Your task to perform on an android device: turn on improve location accuracy Image 0: 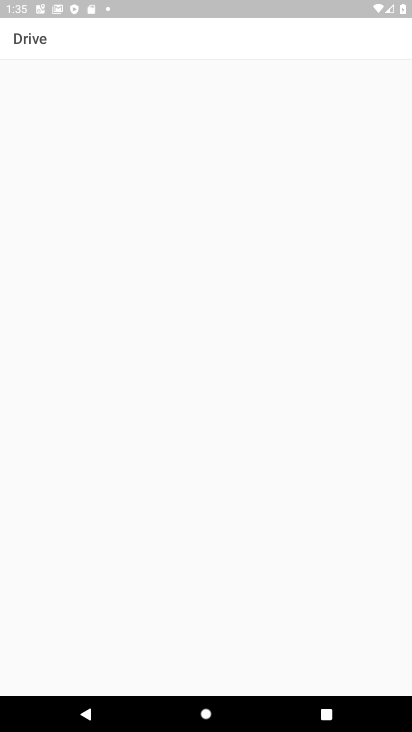
Step 0: press home button
Your task to perform on an android device: turn on improve location accuracy Image 1: 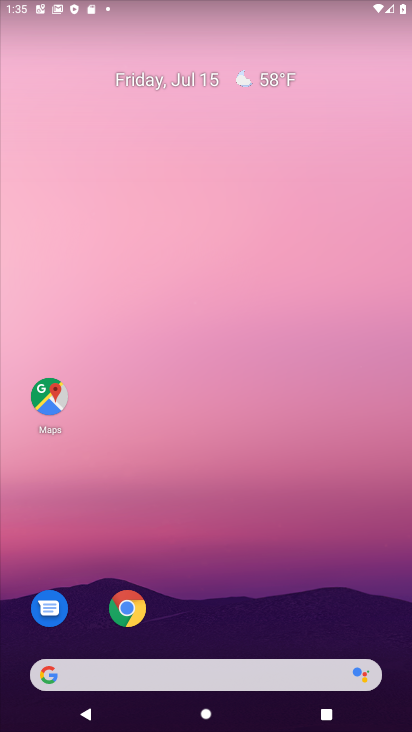
Step 1: drag from (177, 595) to (358, 0)
Your task to perform on an android device: turn on improve location accuracy Image 2: 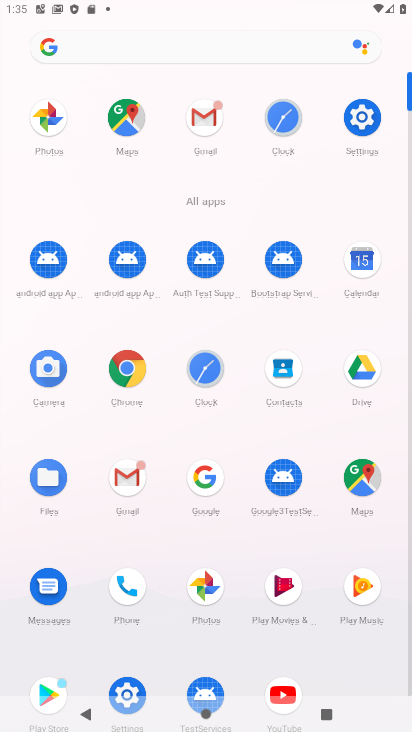
Step 2: drag from (173, 406) to (251, 91)
Your task to perform on an android device: turn on improve location accuracy Image 3: 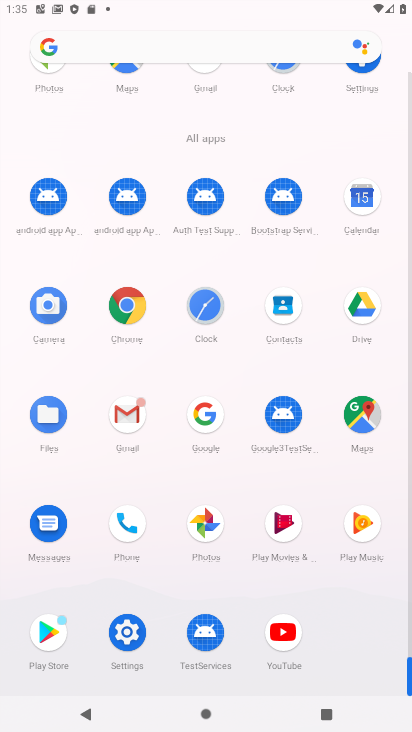
Step 3: click (130, 627)
Your task to perform on an android device: turn on improve location accuracy Image 4: 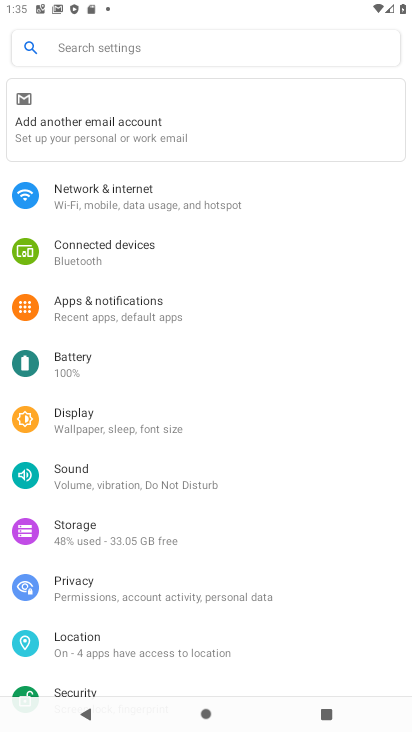
Step 4: drag from (106, 578) to (208, 296)
Your task to perform on an android device: turn on improve location accuracy Image 5: 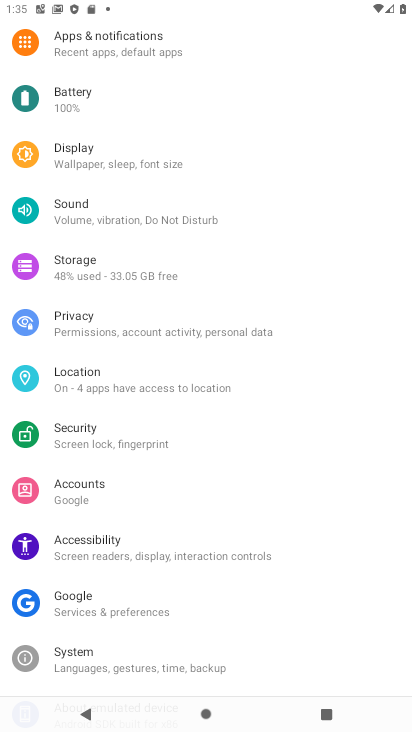
Step 5: click (85, 376)
Your task to perform on an android device: turn on improve location accuracy Image 6: 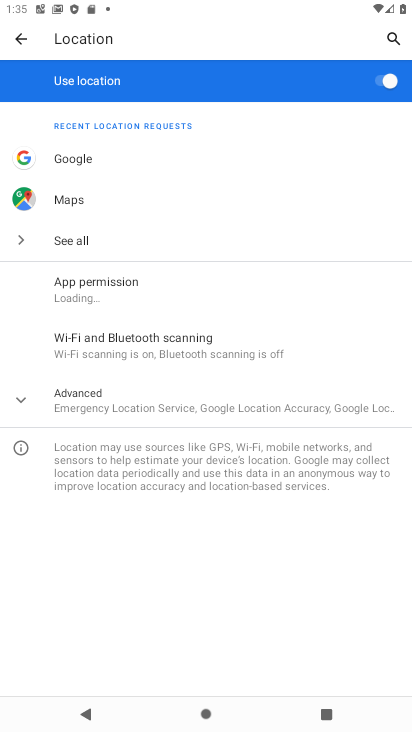
Step 6: click (102, 399)
Your task to perform on an android device: turn on improve location accuracy Image 7: 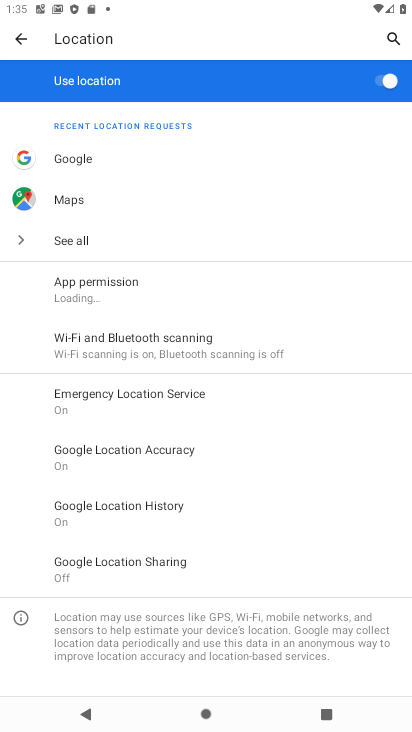
Step 7: click (143, 442)
Your task to perform on an android device: turn on improve location accuracy Image 8: 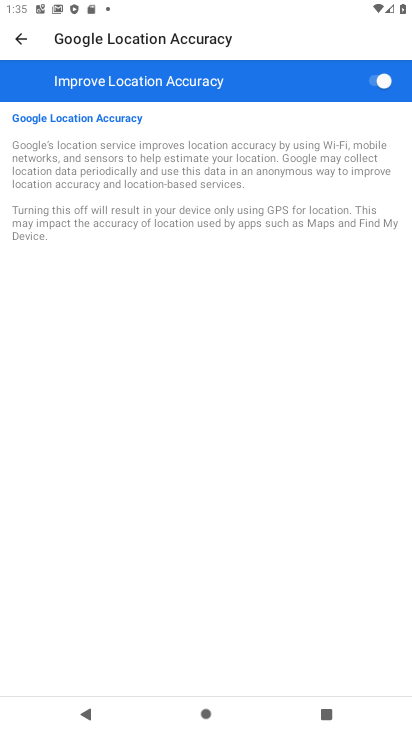
Step 8: task complete